Your task to perform on an android device: open app "Spotify" (install if not already installed) Image 0: 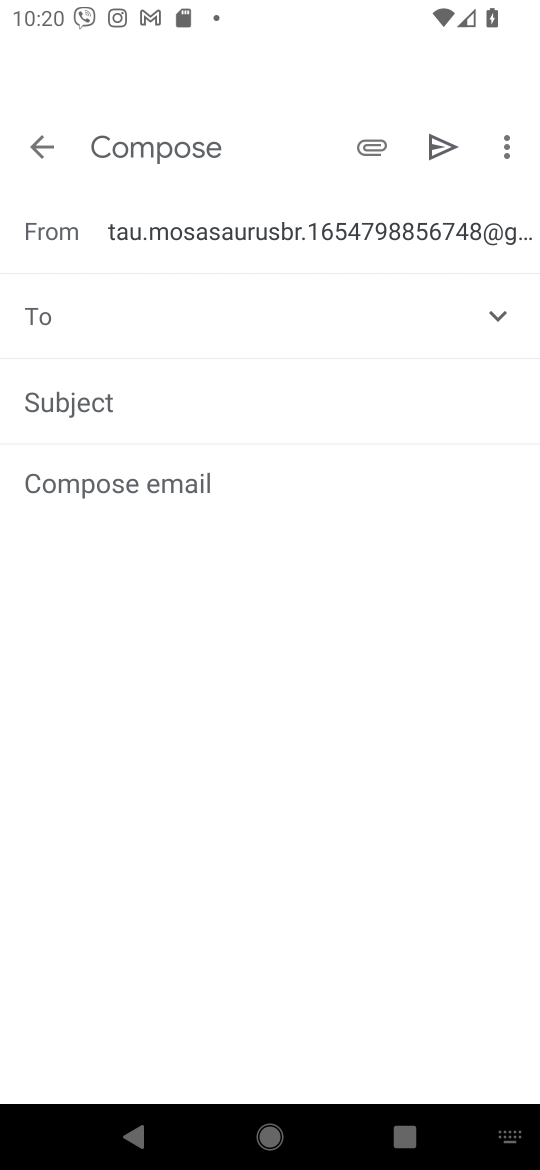
Step 0: press home button
Your task to perform on an android device: open app "Spotify" (install if not already installed) Image 1: 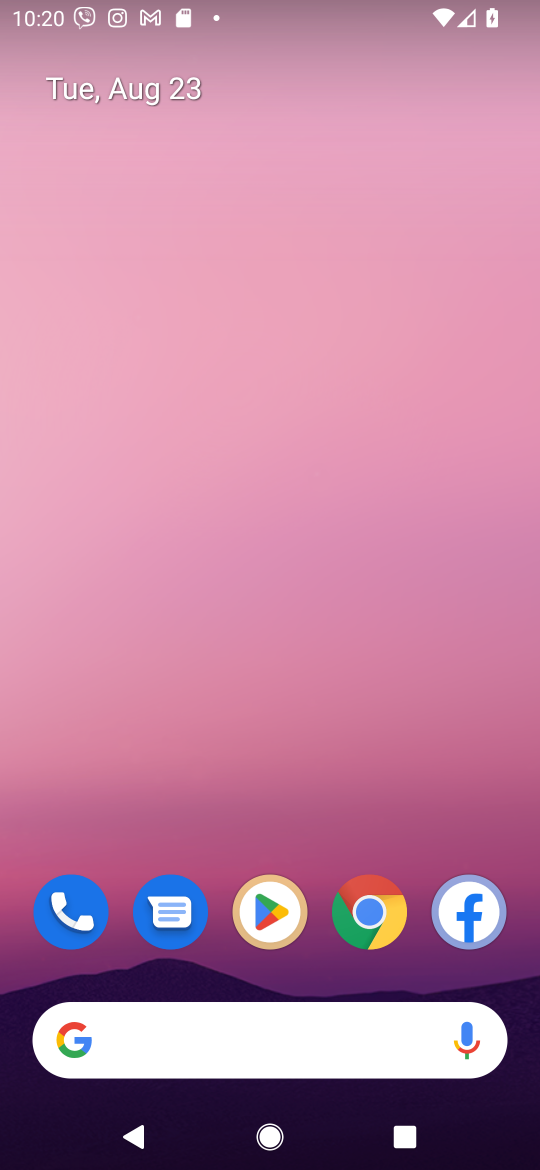
Step 1: click (249, 913)
Your task to perform on an android device: open app "Spotify" (install if not already installed) Image 2: 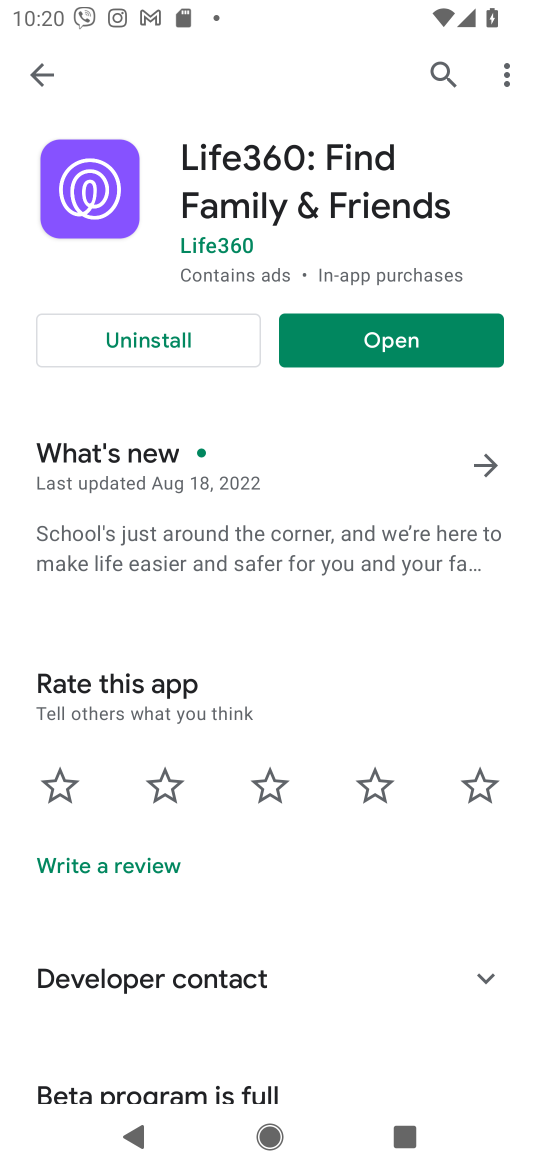
Step 2: click (437, 72)
Your task to perform on an android device: open app "Spotify" (install if not already installed) Image 3: 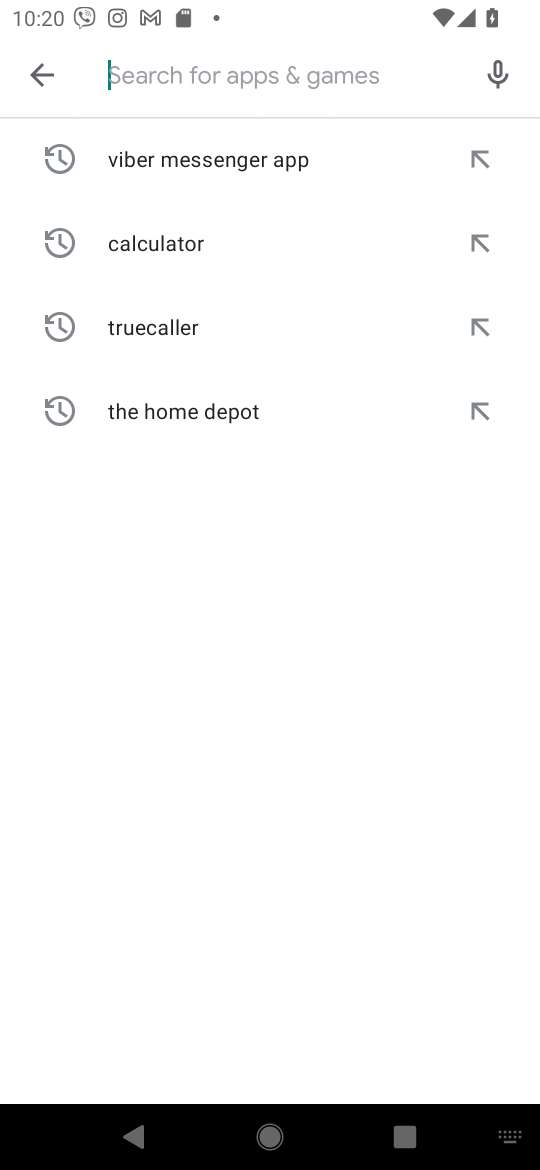
Step 3: type "Spotify"
Your task to perform on an android device: open app "Spotify" (install if not already installed) Image 4: 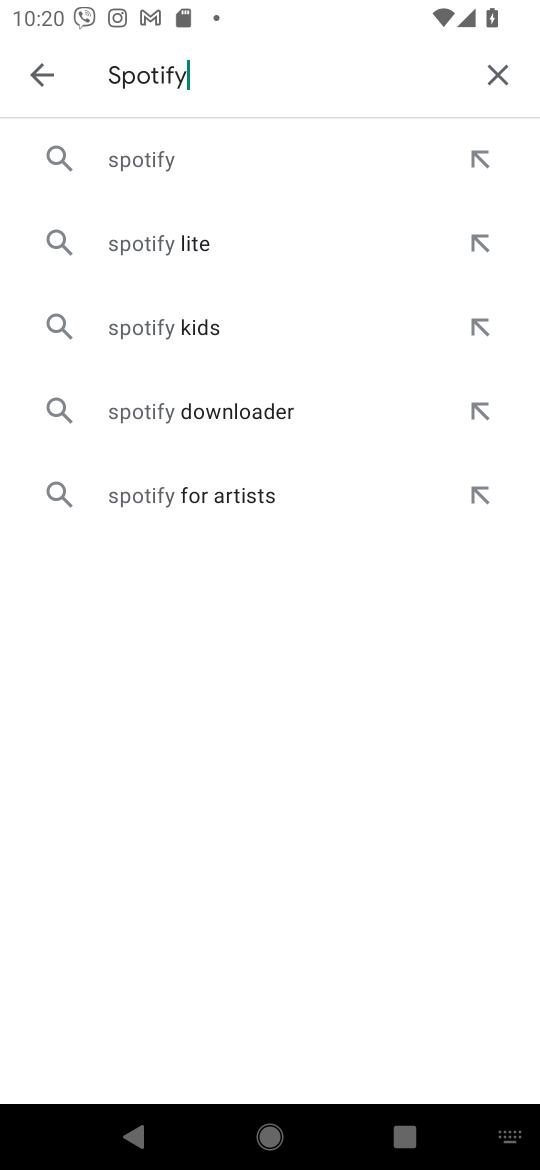
Step 4: click (139, 151)
Your task to perform on an android device: open app "Spotify" (install if not already installed) Image 5: 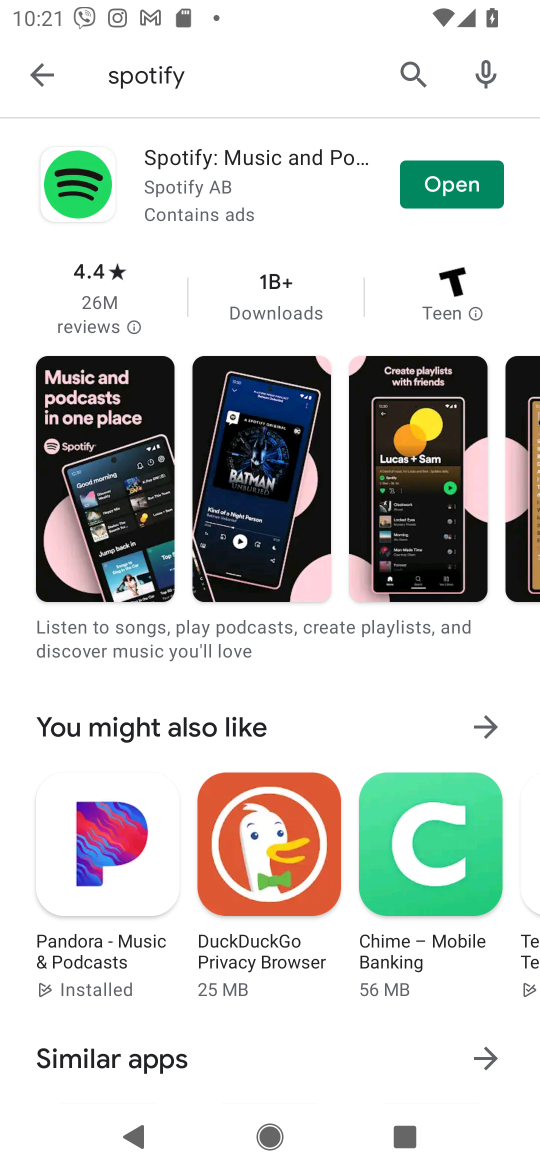
Step 5: click (445, 185)
Your task to perform on an android device: open app "Spotify" (install if not already installed) Image 6: 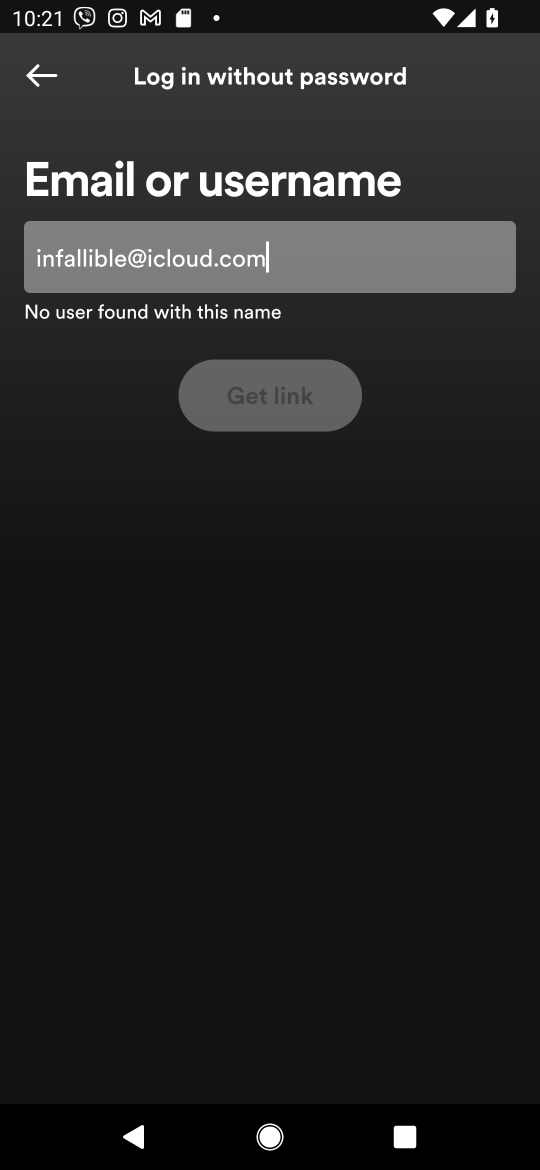
Step 6: task complete